Your task to perform on an android device: turn off wifi Image 0: 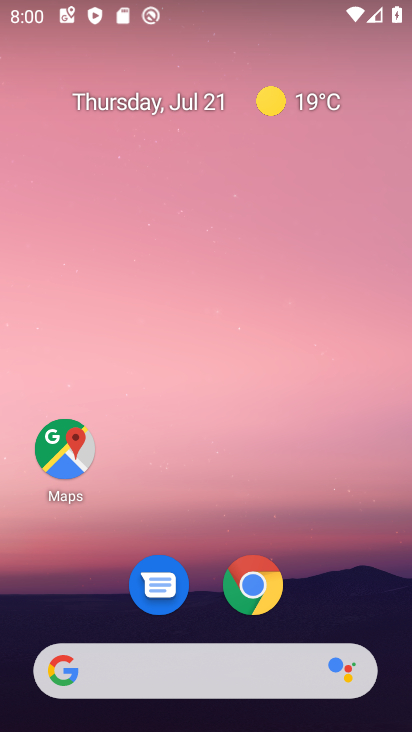
Step 0: drag from (333, 545) to (340, 37)
Your task to perform on an android device: turn off wifi Image 1: 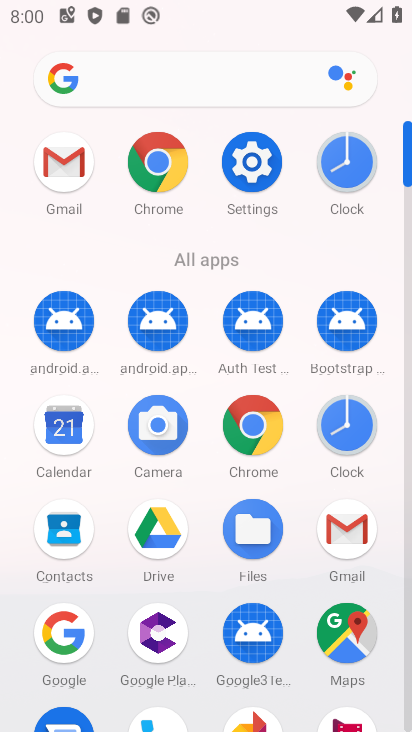
Step 1: click (253, 172)
Your task to perform on an android device: turn off wifi Image 2: 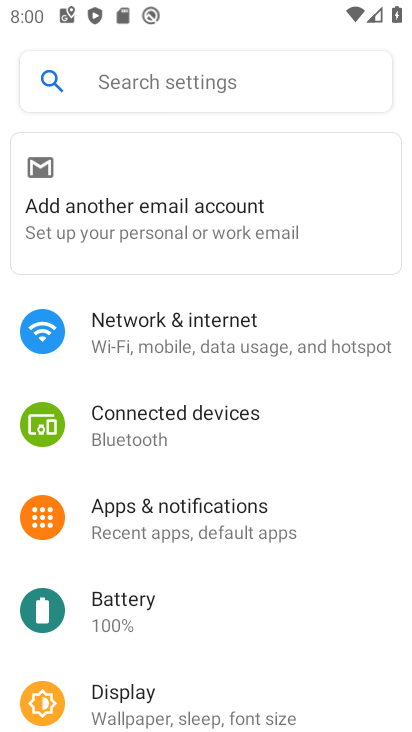
Step 2: click (223, 339)
Your task to perform on an android device: turn off wifi Image 3: 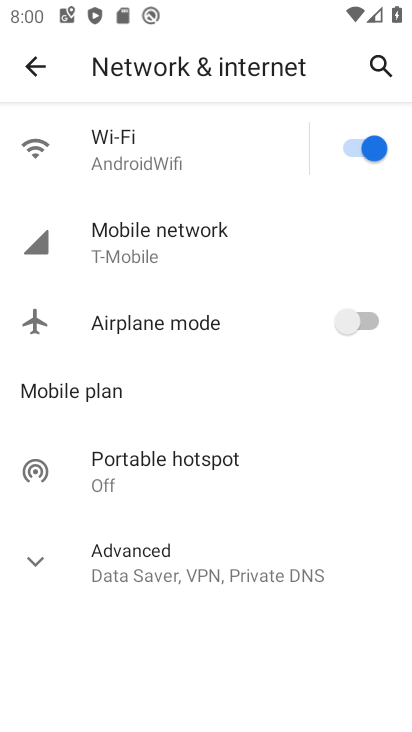
Step 3: click (372, 149)
Your task to perform on an android device: turn off wifi Image 4: 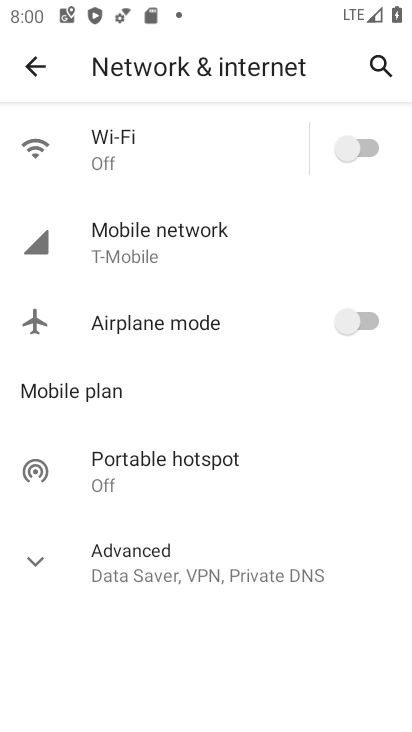
Step 4: task complete